Your task to perform on an android device: Open maps Image 0: 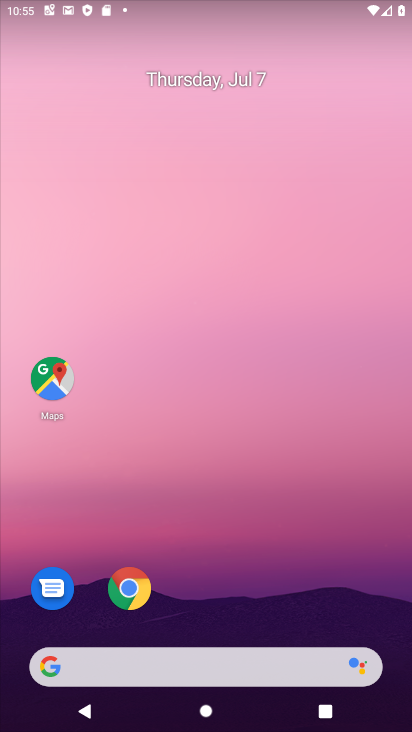
Step 0: drag from (228, 635) to (329, 39)
Your task to perform on an android device: Open maps Image 1: 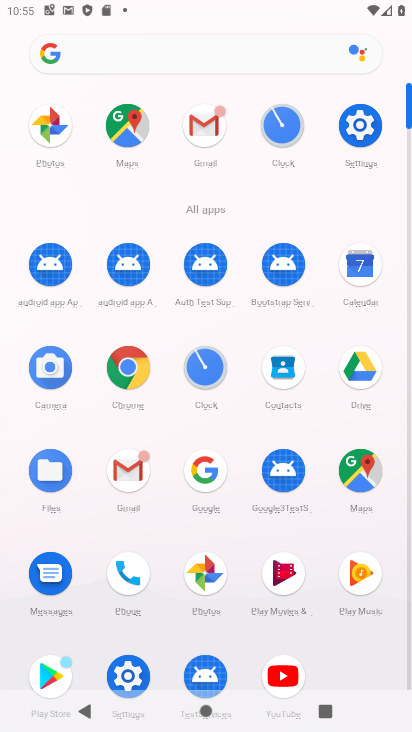
Step 1: click (367, 468)
Your task to perform on an android device: Open maps Image 2: 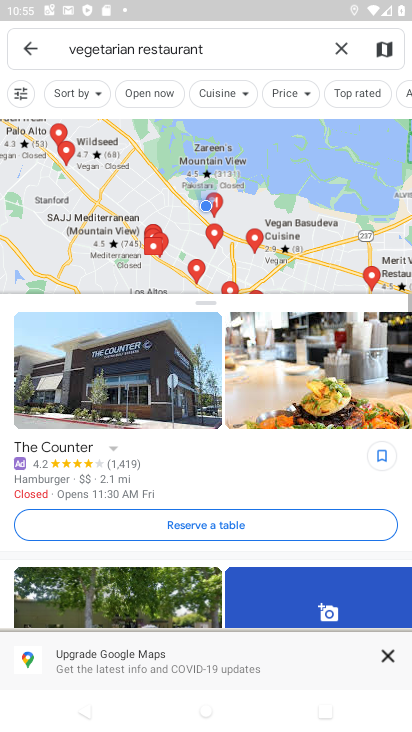
Step 2: task complete